Your task to perform on an android device: toggle wifi Image 0: 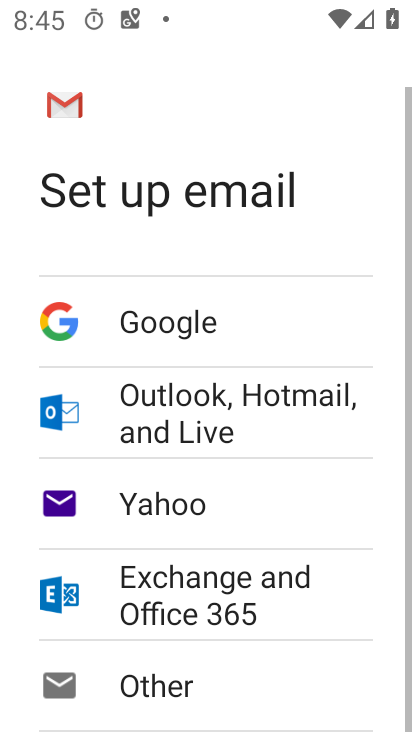
Step 0: press home button
Your task to perform on an android device: toggle wifi Image 1: 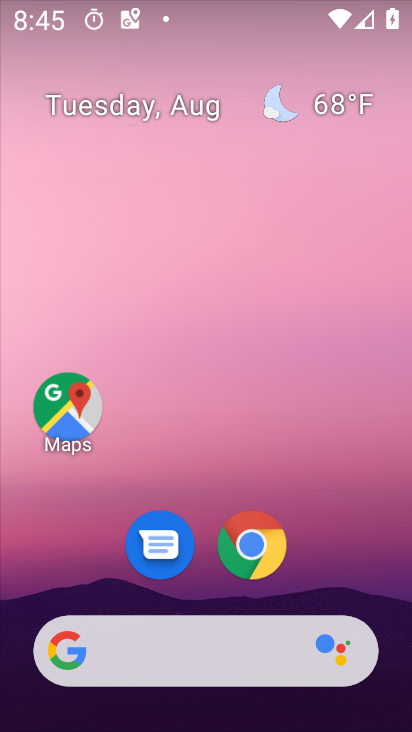
Step 1: click (235, 32)
Your task to perform on an android device: toggle wifi Image 2: 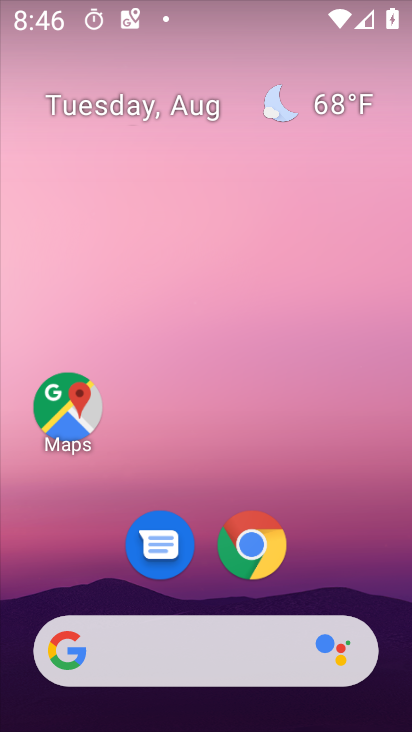
Step 2: drag from (189, 682) to (246, 154)
Your task to perform on an android device: toggle wifi Image 3: 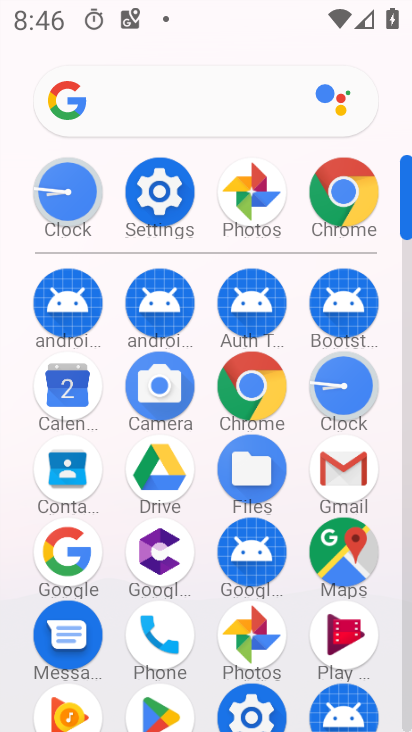
Step 3: click (159, 200)
Your task to perform on an android device: toggle wifi Image 4: 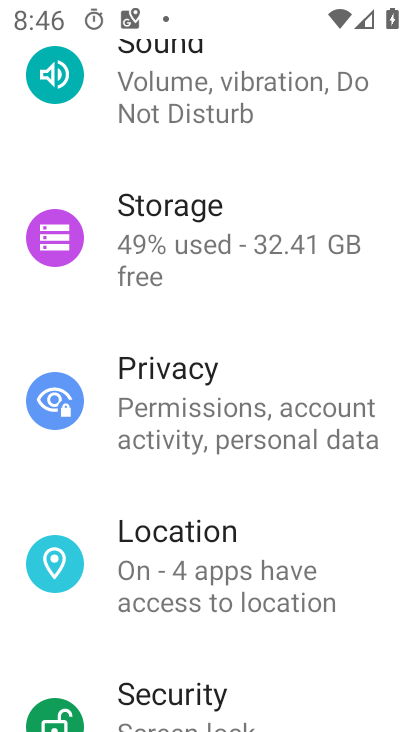
Step 4: drag from (158, 226) to (143, 562)
Your task to perform on an android device: toggle wifi Image 5: 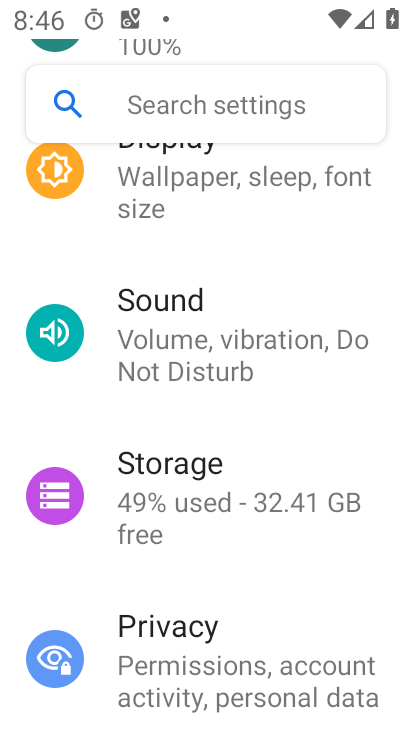
Step 5: drag from (193, 280) to (151, 620)
Your task to perform on an android device: toggle wifi Image 6: 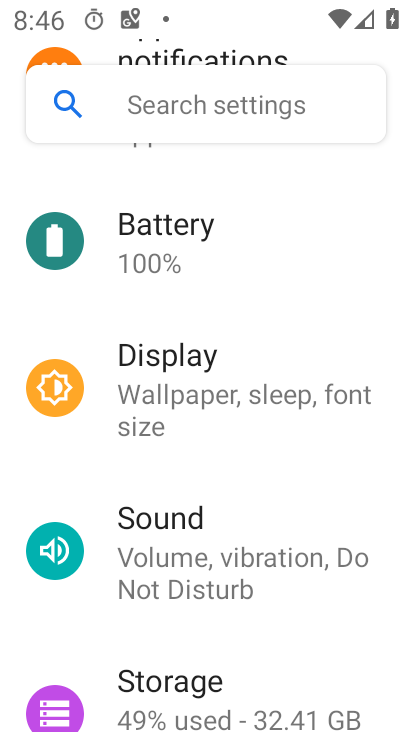
Step 6: drag from (238, 317) to (191, 618)
Your task to perform on an android device: toggle wifi Image 7: 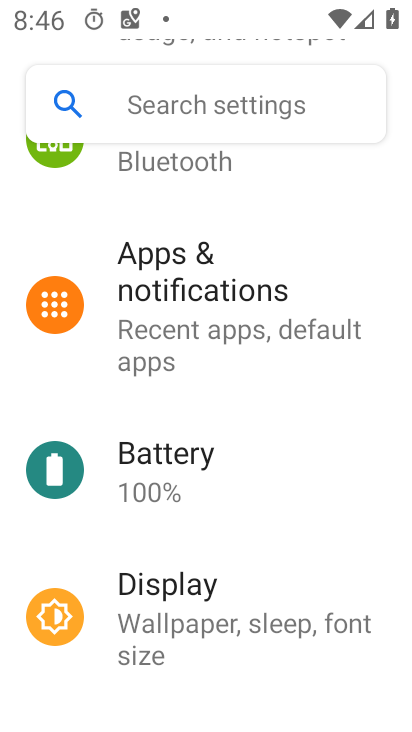
Step 7: drag from (230, 314) to (176, 580)
Your task to perform on an android device: toggle wifi Image 8: 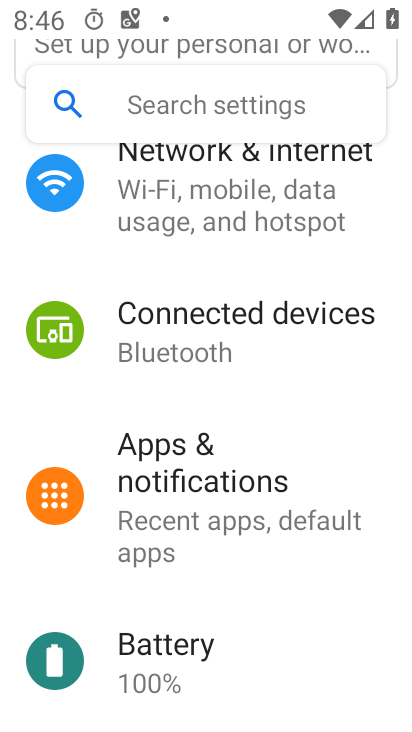
Step 8: drag from (223, 343) to (170, 606)
Your task to perform on an android device: toggle wifi Image 9: 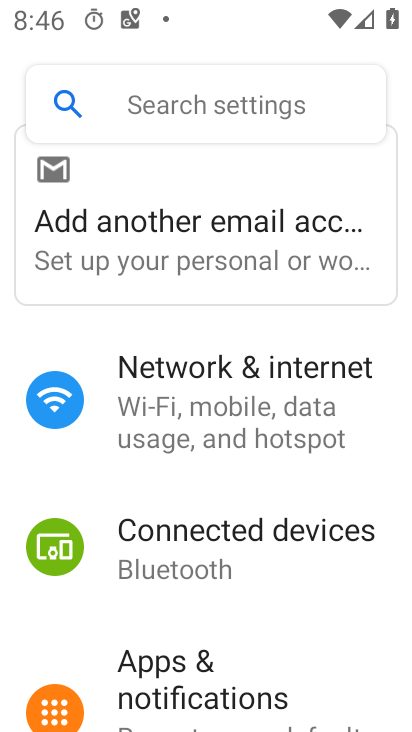
Step 9: drag from (269, 291) to (219, 569)
Your task to perform on an android device: toggle wifi Image 10: 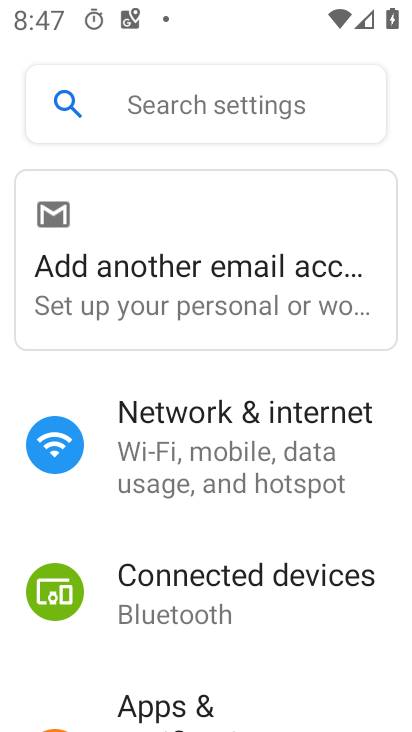
Step 10: click (224, 434)
Your task to perform on an android device: toggle wifi Image 11: 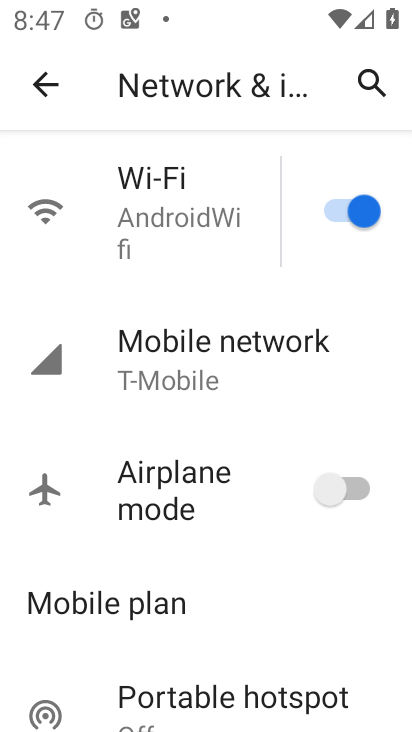
Step 11: click (327, 195)
Your task to perform on an android device: toggle wifi Image 12: 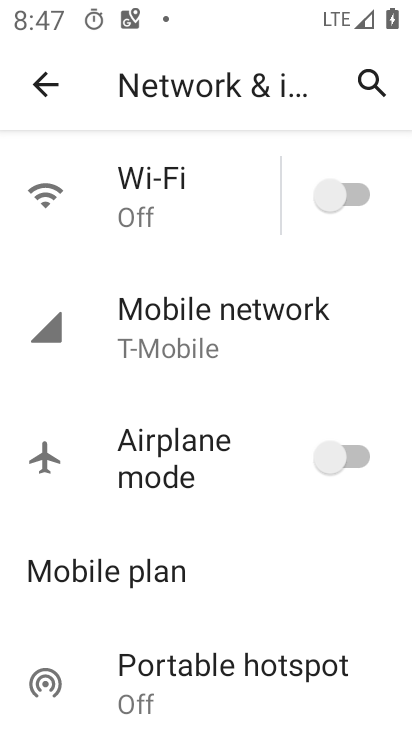
Step 12: task complete